Your task to perform on an android device: Show me popular videos on Youtube Image 0: 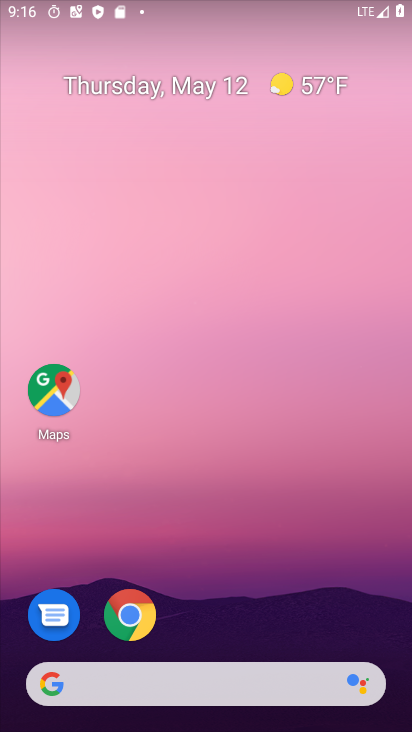
Step 0: drag from (197, 516) to (229, 76)
Your task to perform on an android device: Show me popular videos on Youtube Image 1: 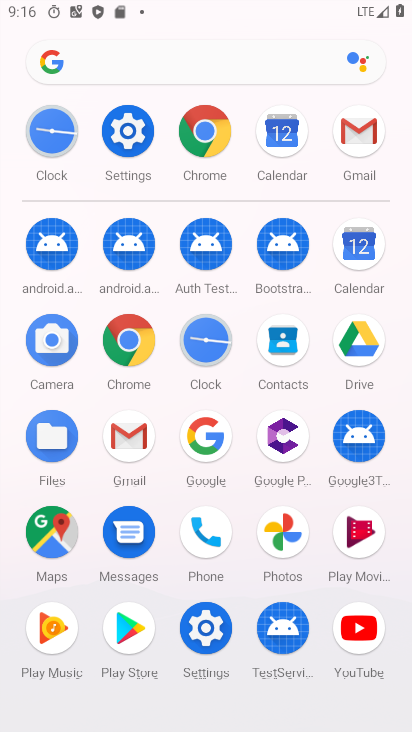
Step 1: drag from (6, 492) to (16, 221)
Your task to perform on an android device: Show me popular videos on Youtube Image 2: 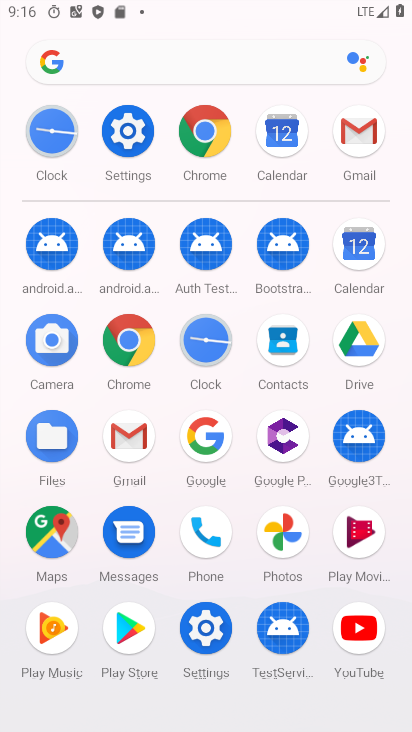
Step 2: click (360, 628)
Your task to perform on an android device: Show me popular videos on Youtube Image 3: 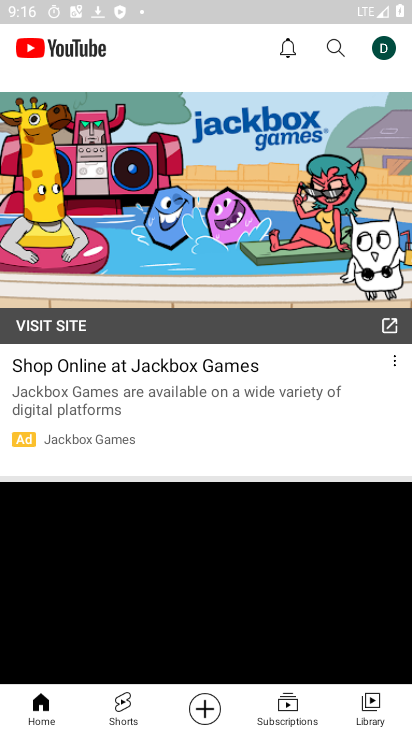
Step 3: click (80, 89)
Your task to perform on an android device: Show me popular videos on Youtube Image 4: 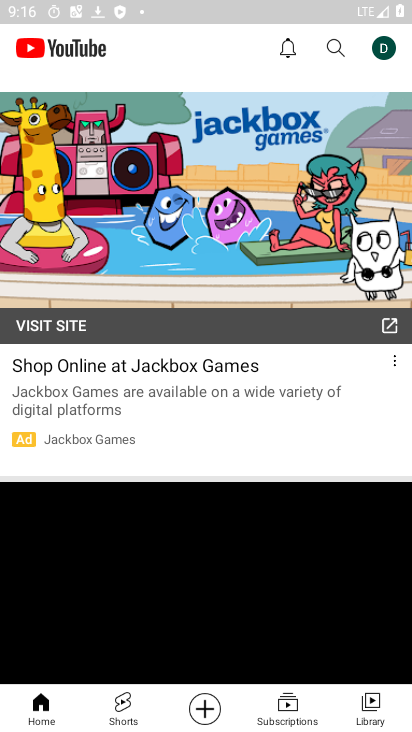
Step 4: drag from (83, 181) to (104, 433)
Your task to perform on an android device: Show me popular videos on Youtube Image 5: 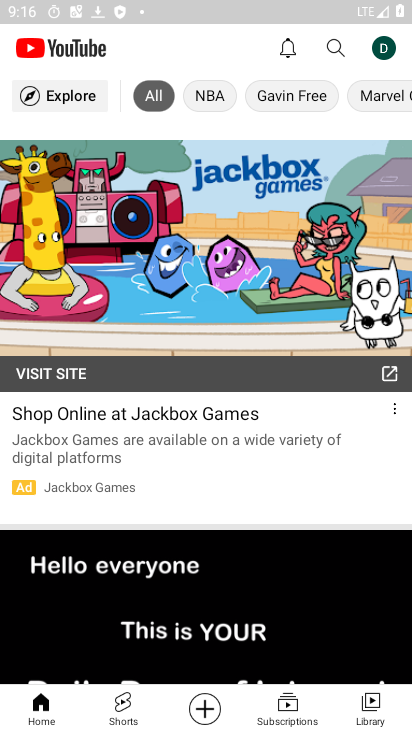
Step 5: click (56, 90)
Your task to perform on an android device: Show me popular videos on Youtube Image 6: 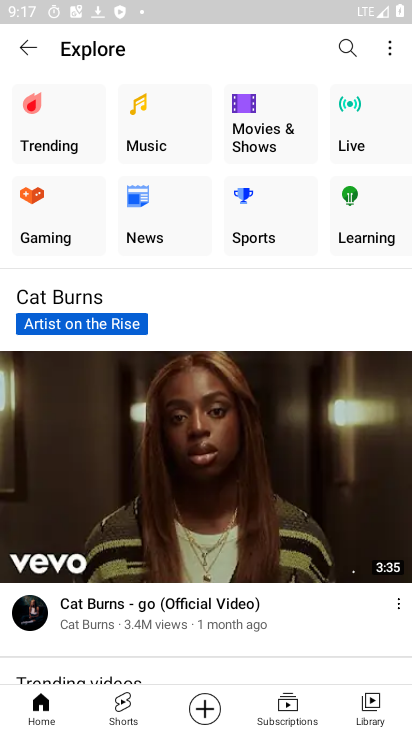
Step 6: click (66, 136)
Your task to perform on an android device: Show me popular videos on Youtube Image 7: 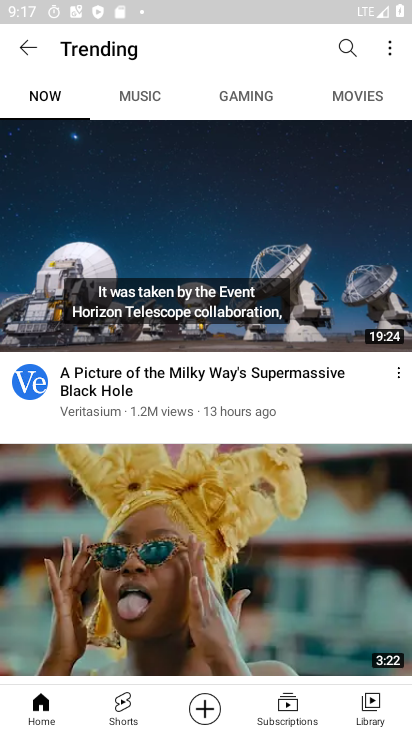
Step 7: task complete